Your task to perform on an android device: change the clock display to digital Image 0: 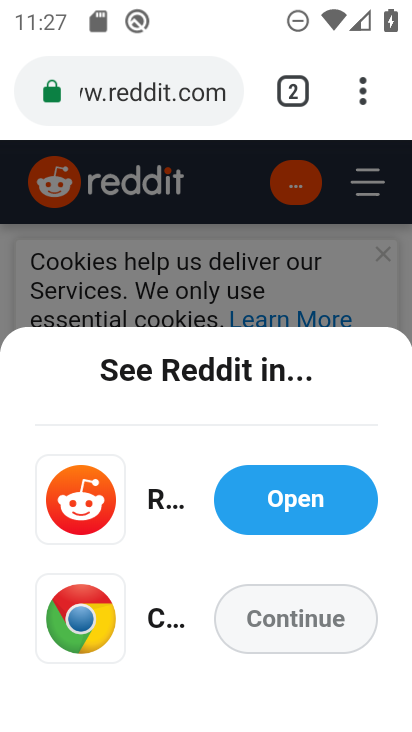
Step 0: press home button
Your task to perform on an android device: change the clock display to digital Image 1: 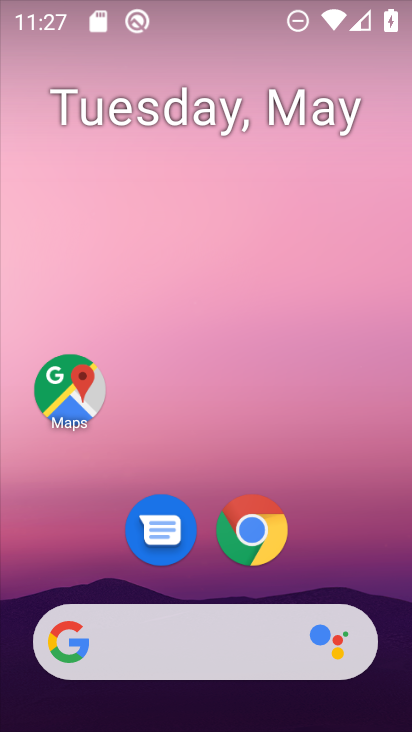
Step 1: drag from (353, 532) to (345, 140)
Your task to perform on an android device: change the clock display to digital Image 2: 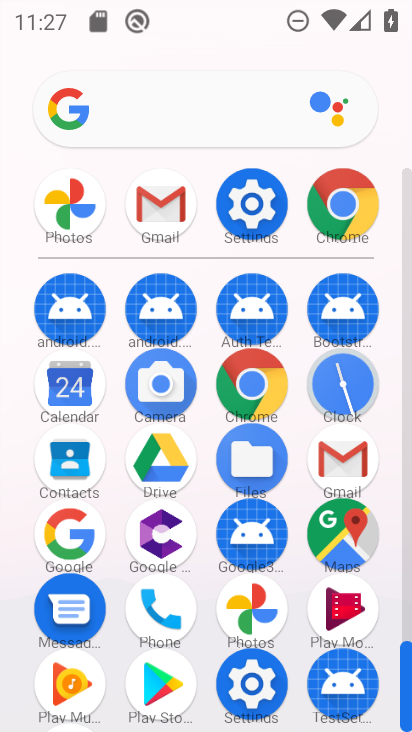
Step 2: click (345, 377)
Your task to perform on an android device: change the clock display to digital Image 3: 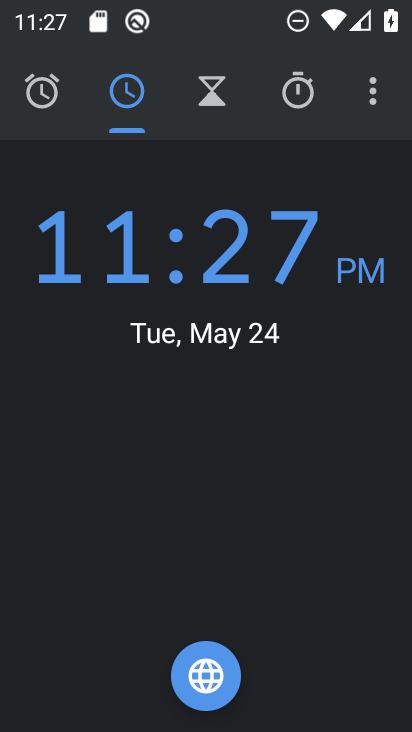
Step 3: click (379, 74)
Your task to perform on an android device: change the clock display to digital Image 4: 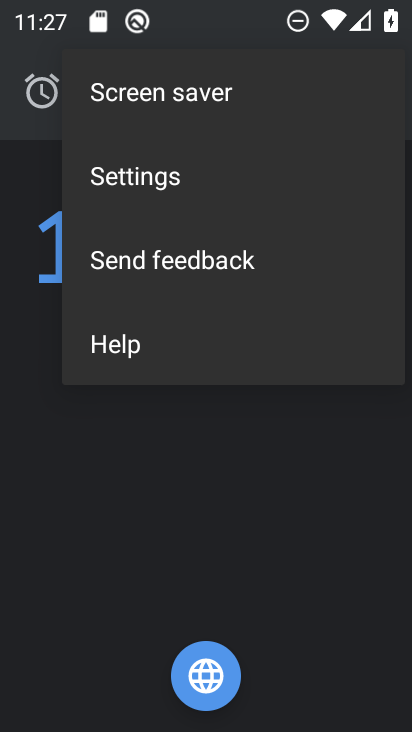
Step 4: click (149, 176)
Your task to perform on an android device: change the clock display to digital Image 5: 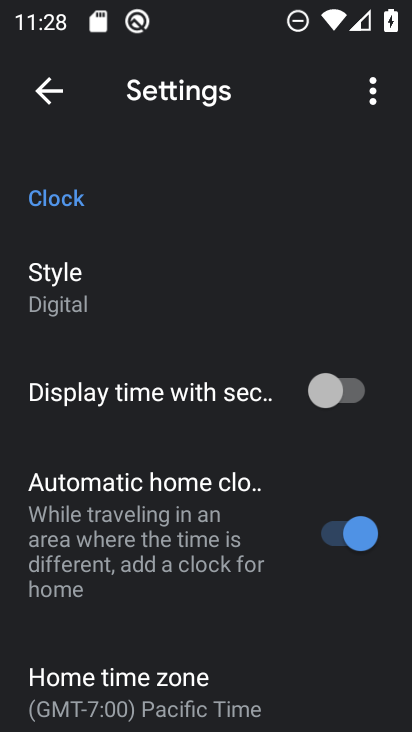
Step 5: click (66, 301)
Your task to perform on an android device: change the clock display to digital Image 6: 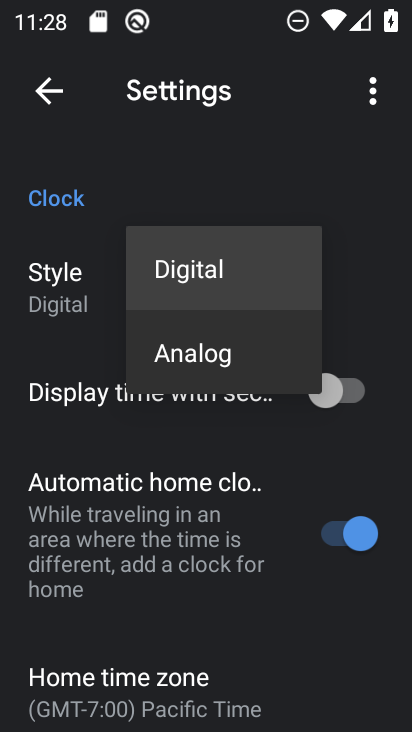
Step 6: task complete